Your task to perform on an android device: change alarm snooze length Image 0: 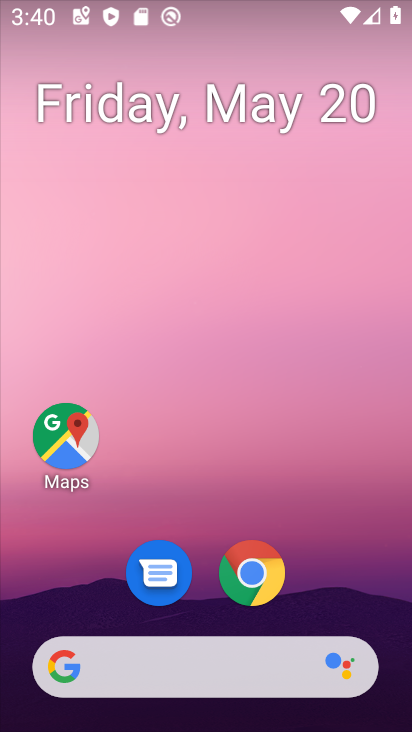
Step 0: drag from (388, 640) to (290, 154)
Your task to perform on an android device: change alarm snooze length Image 1: 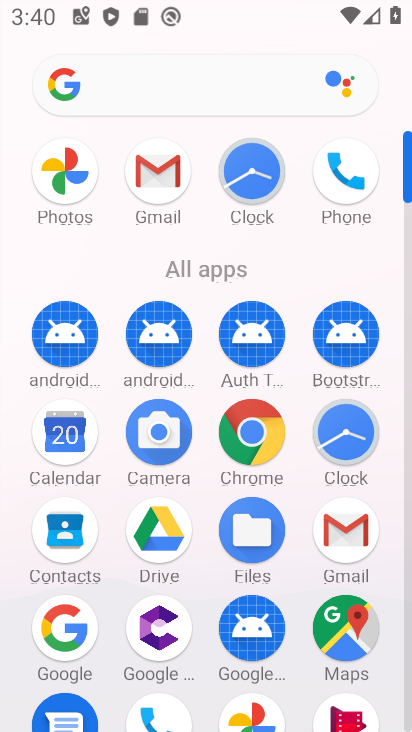
Step 1: click (347, 434)
Your task to perform on an android device: change alarm snooze length Image 2: 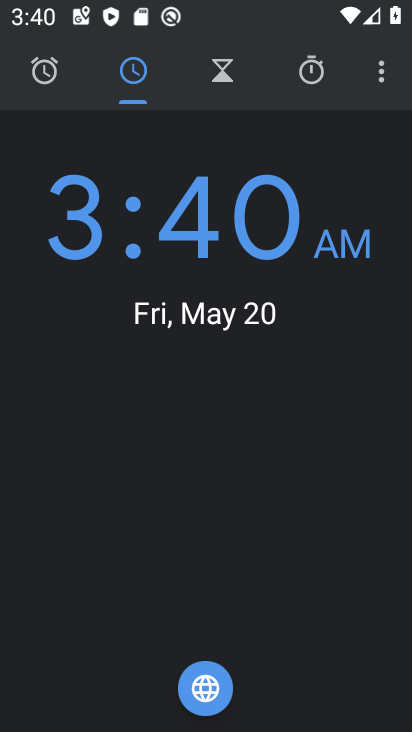
Step 2: click (377, 76)
Your task to perform on an android device: change alarm snooze length Image 3: 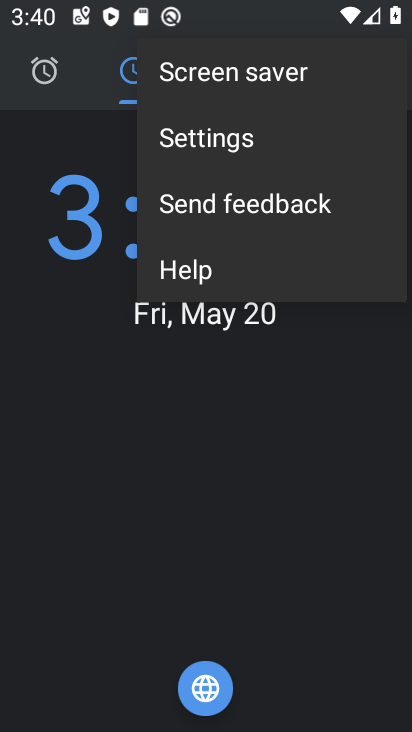
Step 3: click (194, 129)
Your task to perform on an android device: change alarm snooze length Image 4: 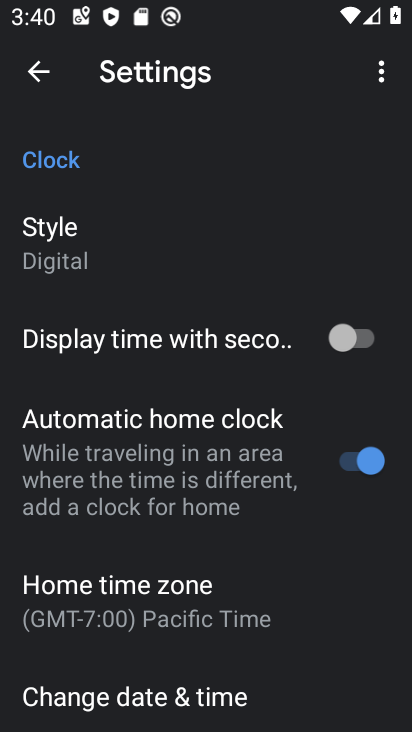
Step 4: drag from (289, 623) to (290, 161)
Your task to perform on an android device: change alarm snooze length Image 5: 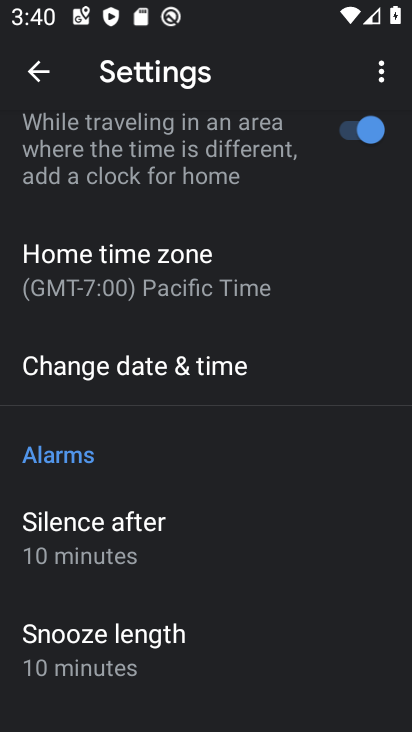
Step 5: drag from (290, 560) to (295, 251)
Your task to perform on an android device: change alarm snooze length Image 6: 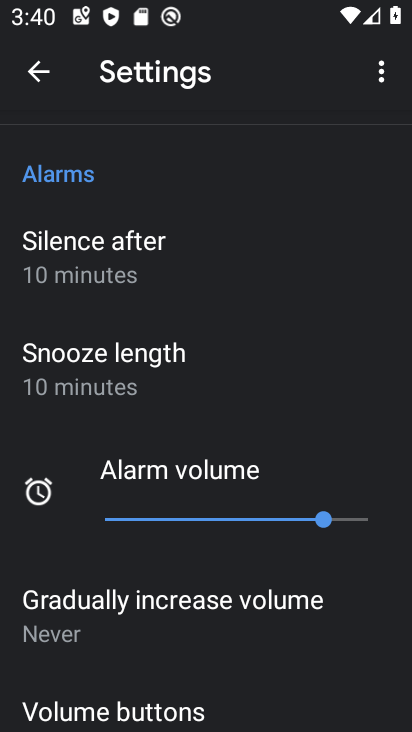
Step 6: click (47, 360)
Your task to perform on an android device: change alarm snooze length Image 7: 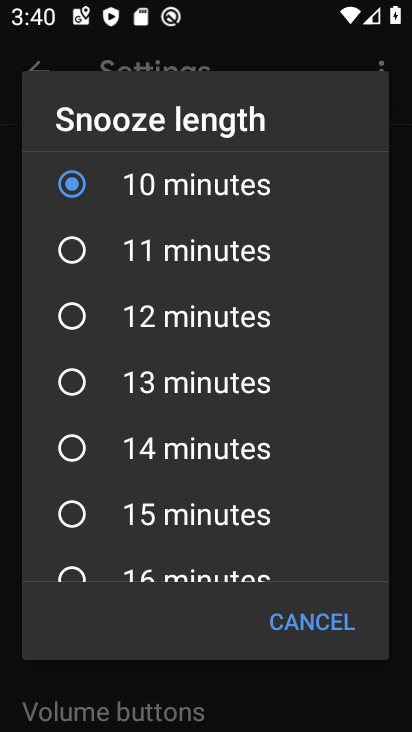
Step 7: click (75, 508)
Your task to perform on an android device: change alarm snooze length Image 8: 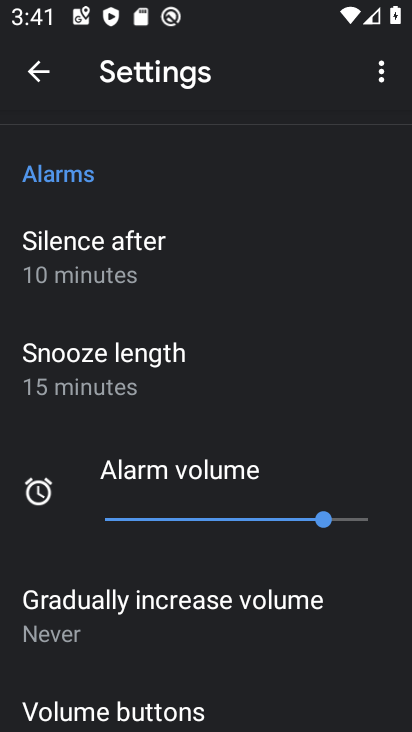
Step 8: click (68, 349)
Your task to perform on an android device: change alarm snooze length Image 9: 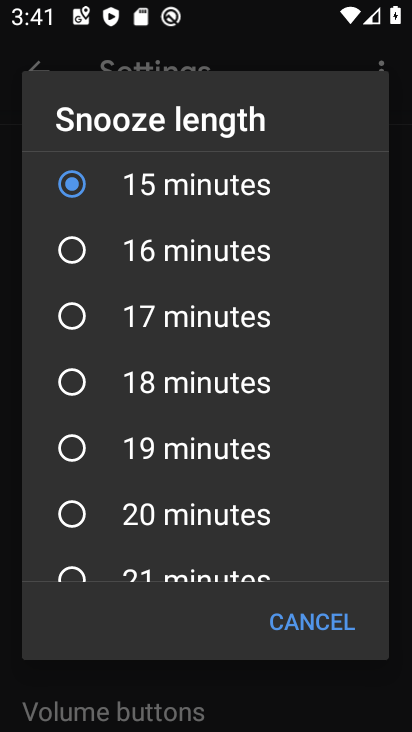
Step 9: click (76, 507)
Your task to perform on an android device: change alarm snooze length Image 10: 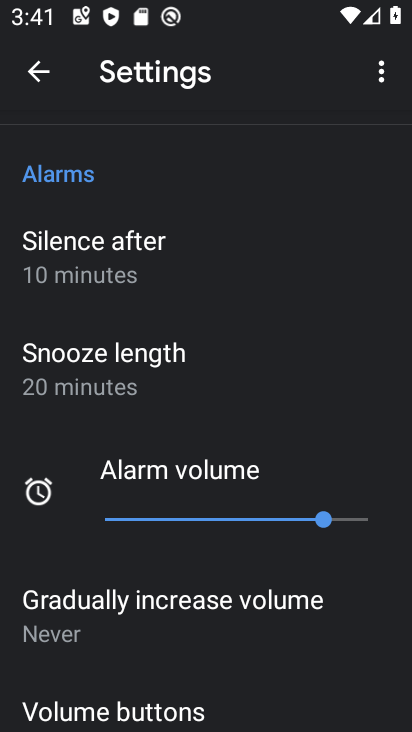
Step 10: task complete